Your task to perform on an android device: See recent photos Image 0: 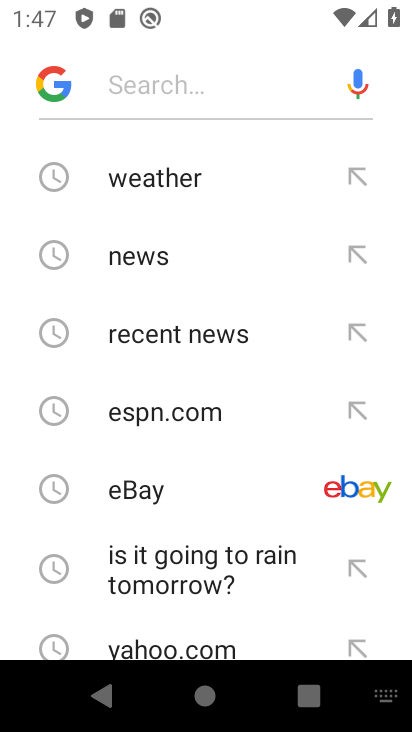
Step 0: press home button
Your task to perform on an android device: See recent photos Image 1: 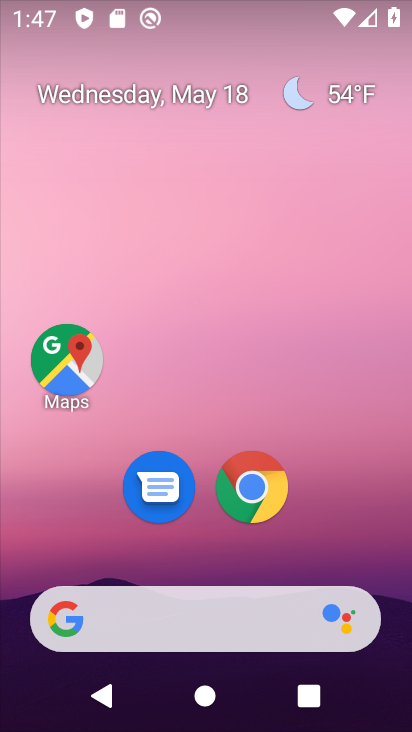
Step 1: drag from (318, 525) to (360, 43)
Your task to perform on an android device: See recent photos Image 2: 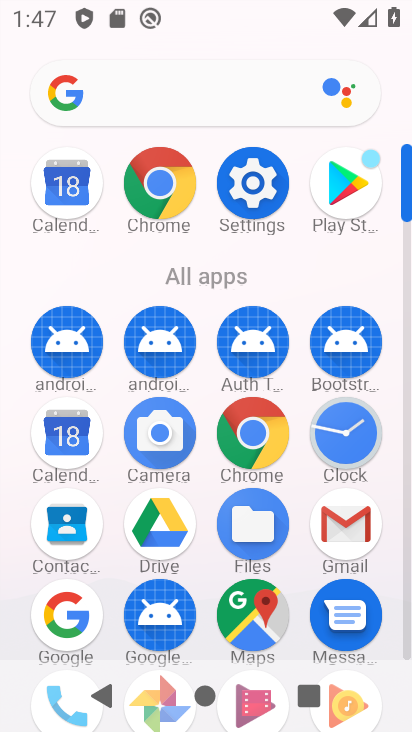
Step 2: drag from (271, 567) to (295, 187)
Your task to perform on an android device: See recent photos Image 3: 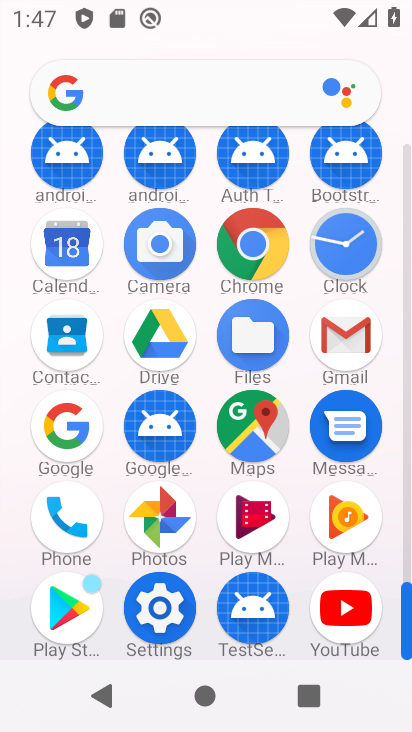
Step 3: click (148, 512)
Your task to perform on an android device: See recent photos Image 4: 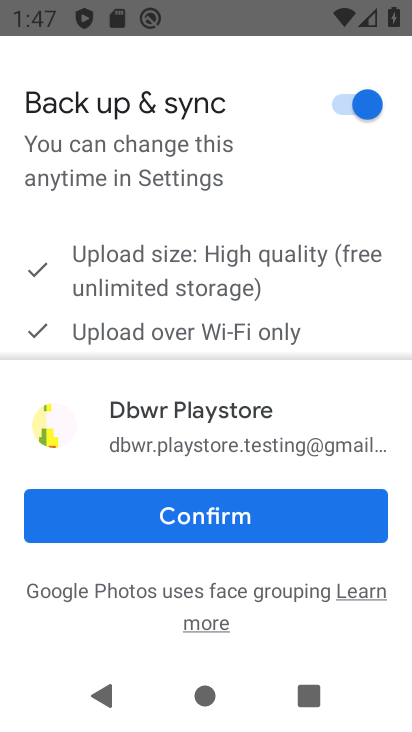
Step 4: click (205, 525)
Your task to perform on an android device: See recent photos Image 5: 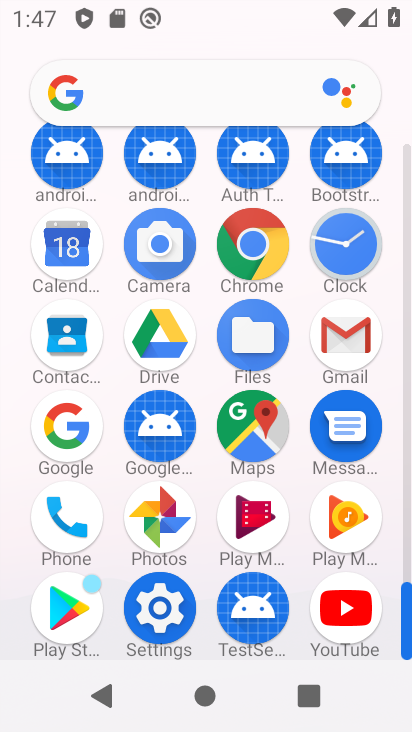
Step 5: click (174, 520)
Your task to perform on an android device: See recent photos Image 6: 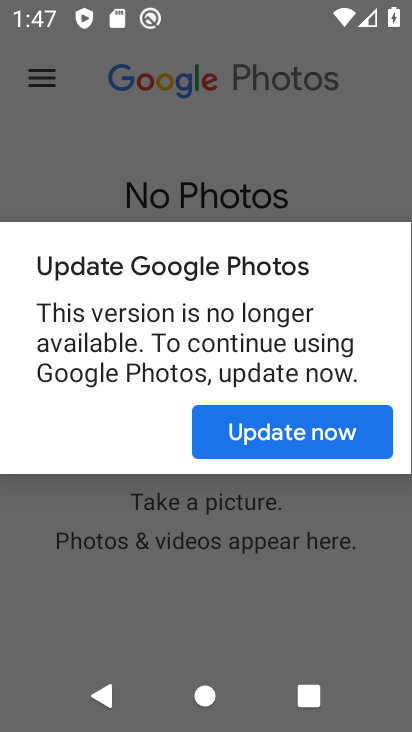
Step 6: click (335, 446)
Your task to perform on an android device: See recent photos Image 7: 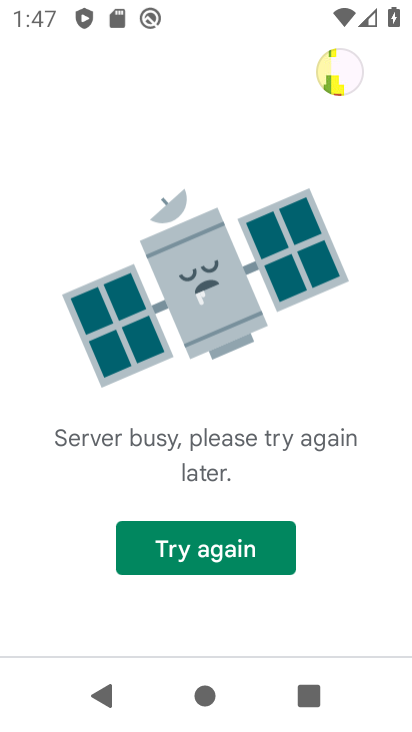
Step 7: click (215, 546)
Your task to perform on an android device: See recent photos Image 8: 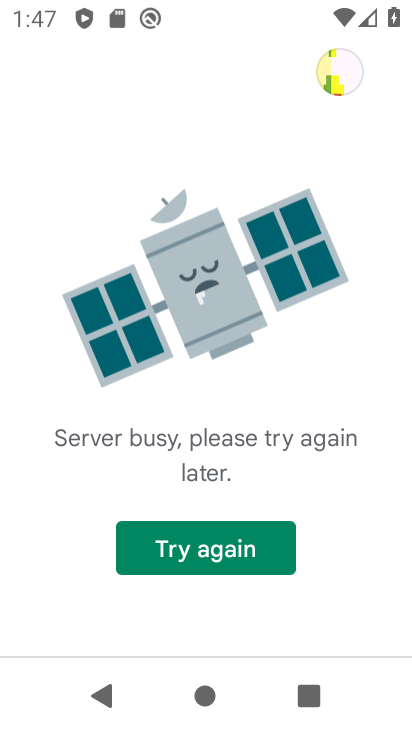
Step 8: task complete